Your task to perform on an android device: set the timer Image 0: 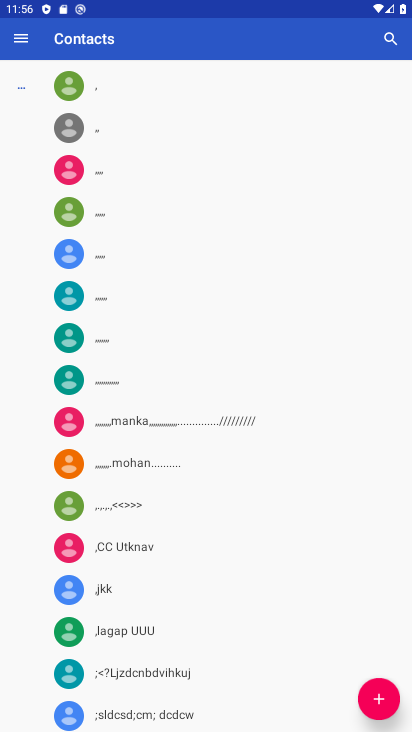
Step 0: press home button
Your task to perform on an android device: set the timer Image 1: 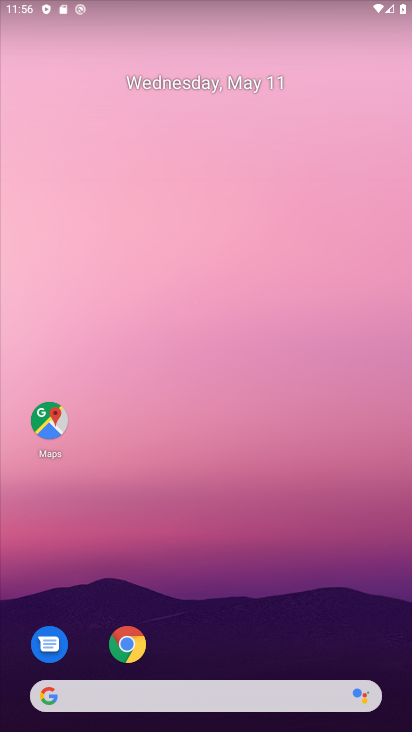
Step 1: drag from (254, 631) to (162, 75)
Your task to perform on an android device: set the timer Image 2: 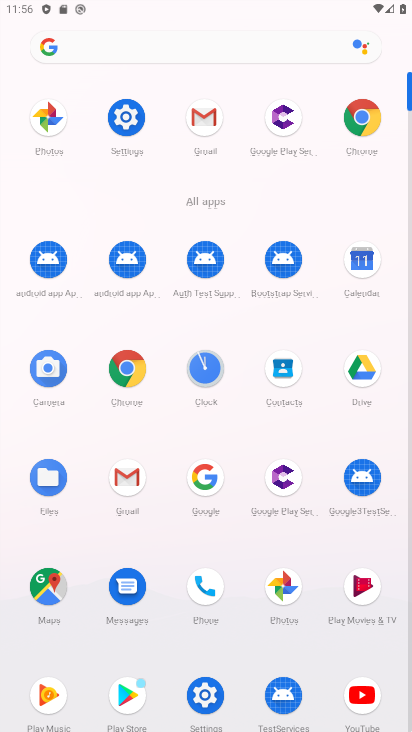
Step 2: click (207, 370)
Your task to perform on an android device: set the timer Image 3: 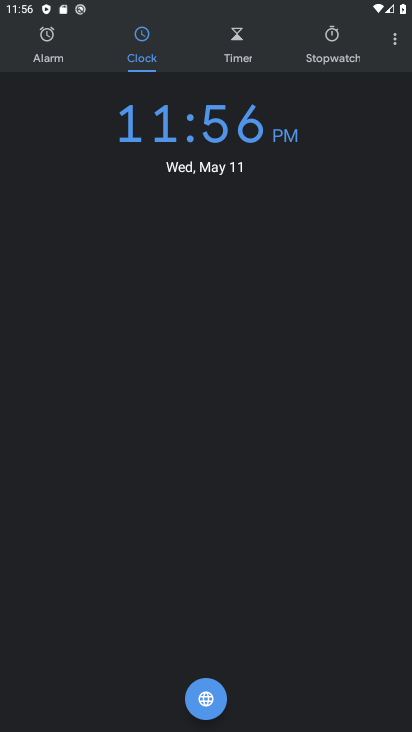
Step 3: click (249, 57)
Your task to perform on an android device: set the timer Image 4: 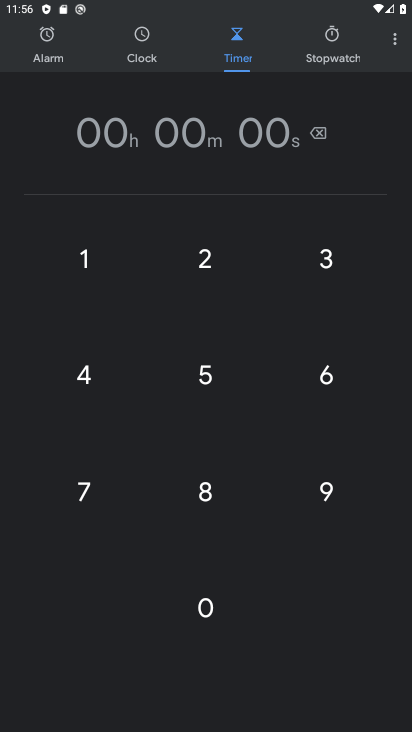
Step 4: click (85, 252)
Your task to perform on an android device: set the timer Image 5: 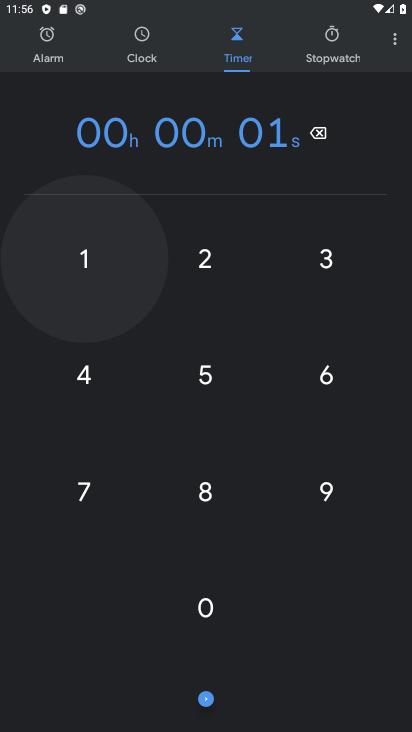
Step 5: click (85, 252)
Your task to perform on an android device: set the timer Image 6: 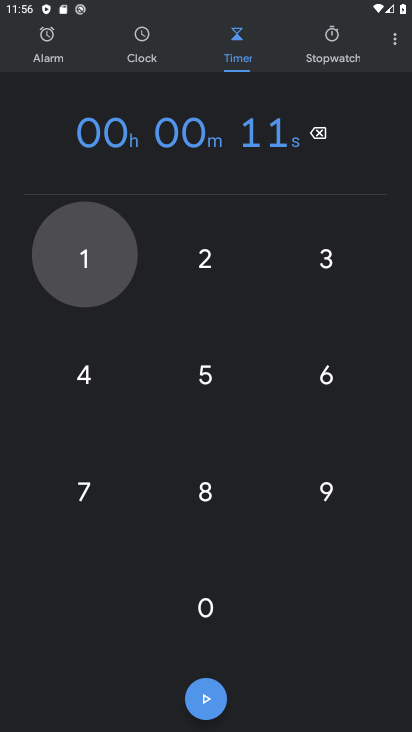
Step 6: click (85, 252)
Your task to perform on an android device: set the timer Image 7: 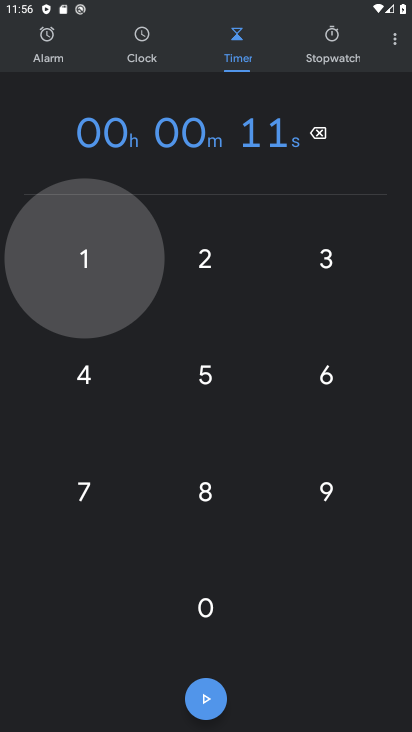
Step 7: click (86, 253)
Your task to perform on an android device: set the timer Image 8: 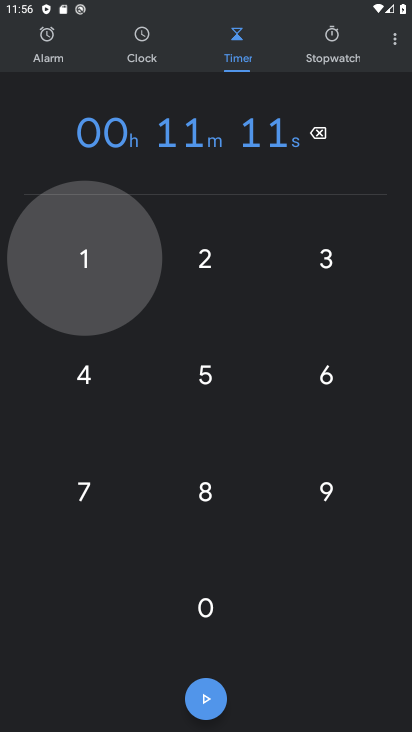
Step 8: click (86, 253)
Your task to perform on an android device: set the timer Image 9: 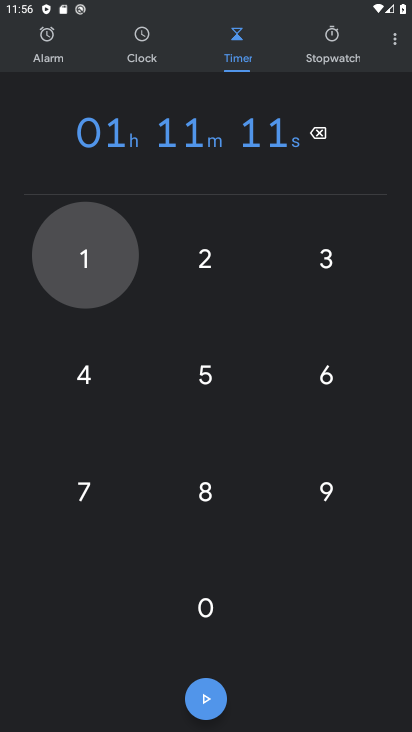
Step 9: click (86, 253)
Your task to perform on an android device: set the timer Image 10: 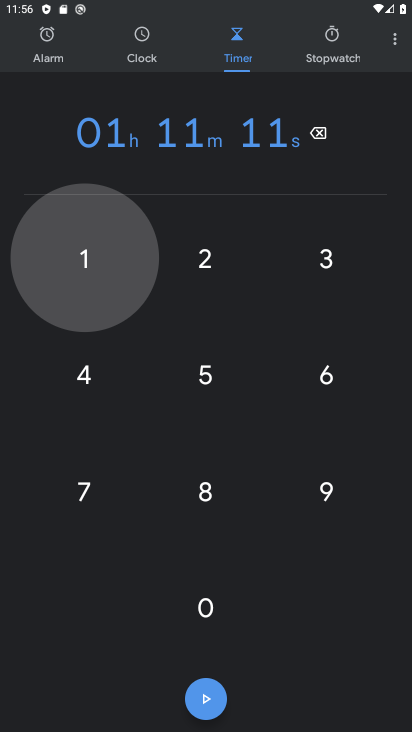
Step 10: click (87, 253)
Your task to perform on an android device: set the timer Image 11: 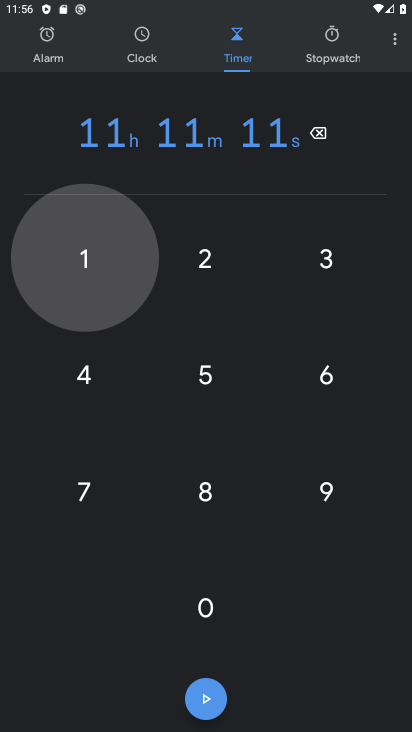
Step 11: click (87, 253)
Your task to perform on an android device: set the timer Image 12: 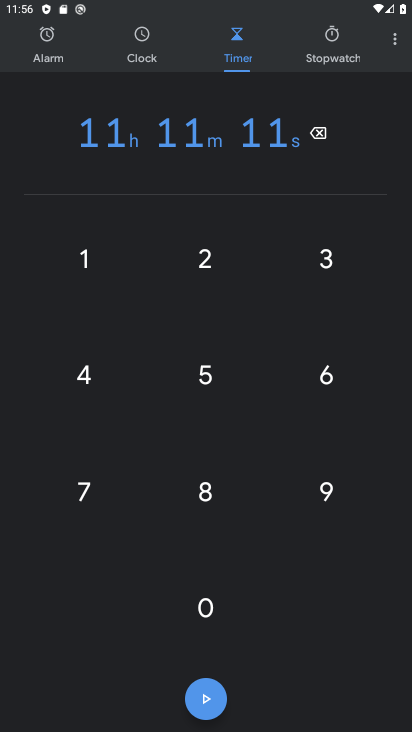
Step 12: task complete